Your task to perform on an android device: open a bookmark in the chrome app Image 0: 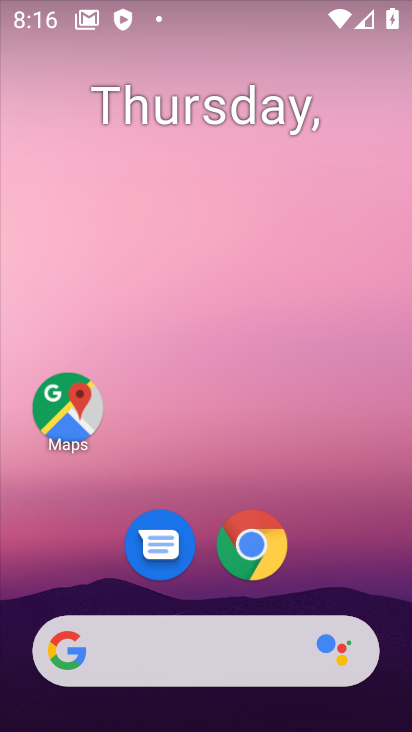
Step 0: click (256, 554)
Your task to perform on an android device: open a bookmark in the chrome app Image 1: 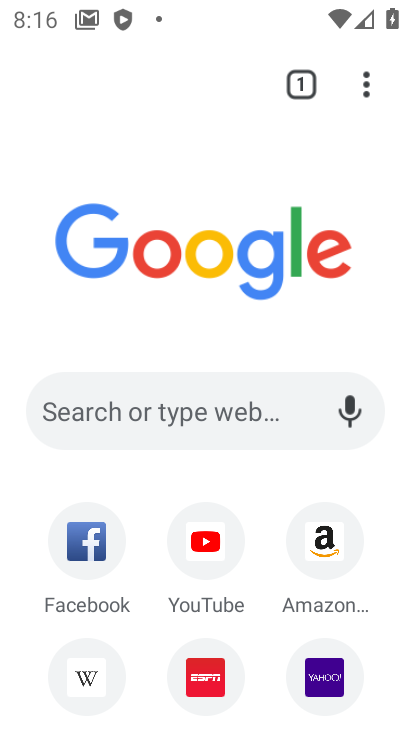
Step 1: click (375, 83)
Your task to perform on an android device: open a bookmark in the chrome app Image 2: 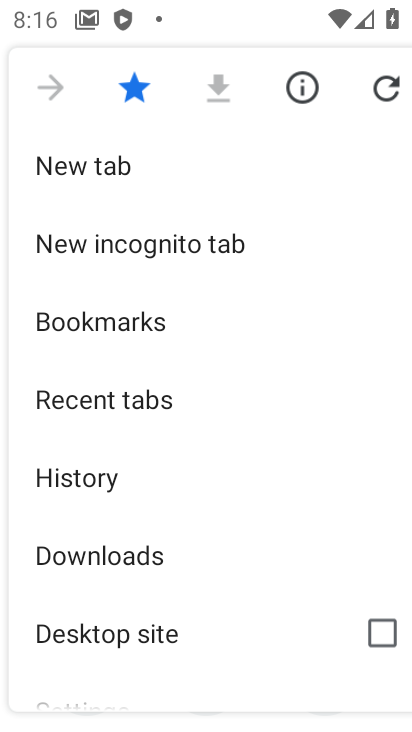
Step 2: click (56, 342)
Your task to perform on an android device: open a bookmark in the chrome app Image 3: 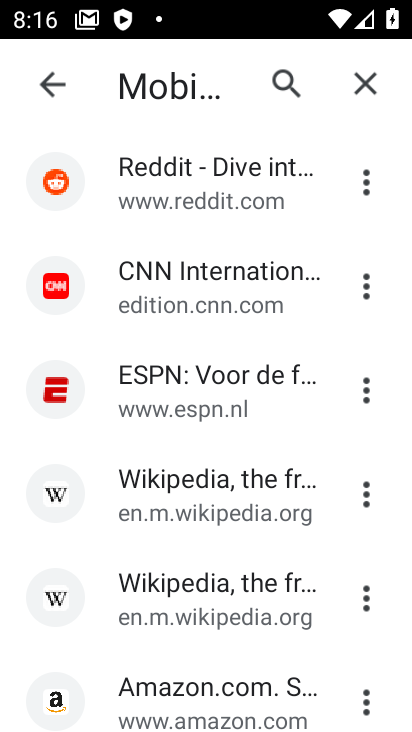
Step 3: click (155, 279)
Your task to perform on an android device: open a bookmark in the chrome app Image 4: 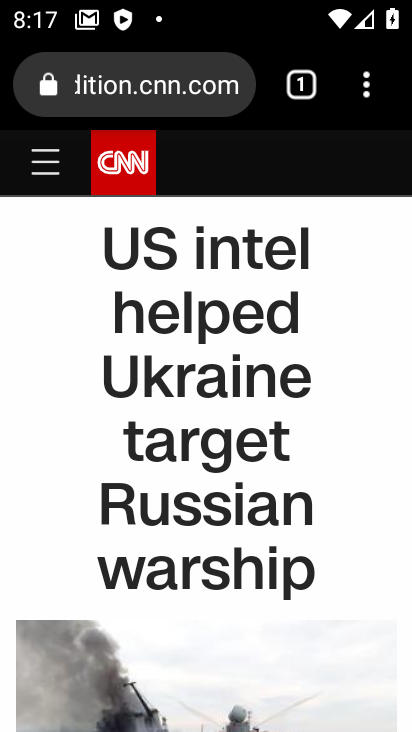
Step 4: task complete